Your task to perform on an android device: allow cookies in the chrome app Image 0: 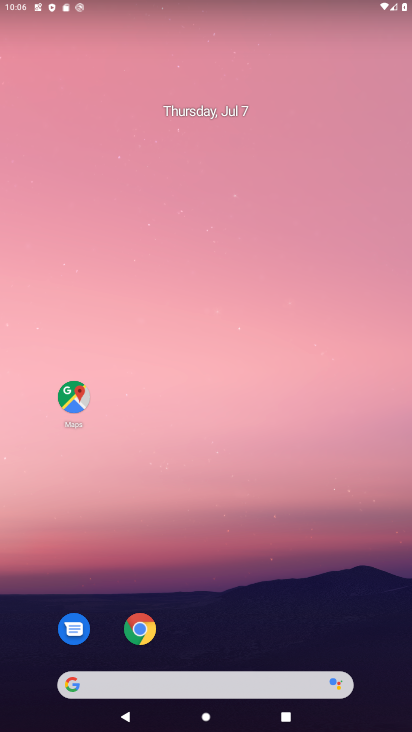
Step 0: drag from (213, 639) to (249, 116)
Your task to perform on an android device: allow cookies in the chrome app Image 1: 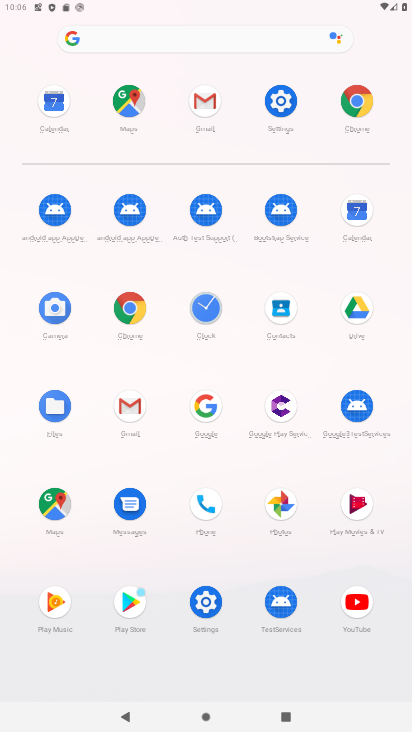
Step 1: click (123, 302)
Your task to perform on an android device: allow cookies in the chrome app Image 2: 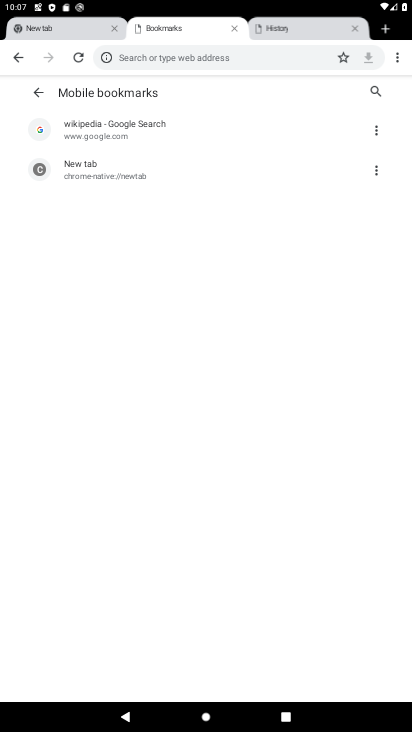
Step 2: click (392, 52)
Your task to perform on an android device: allow cookies in the chrome app Image 3: 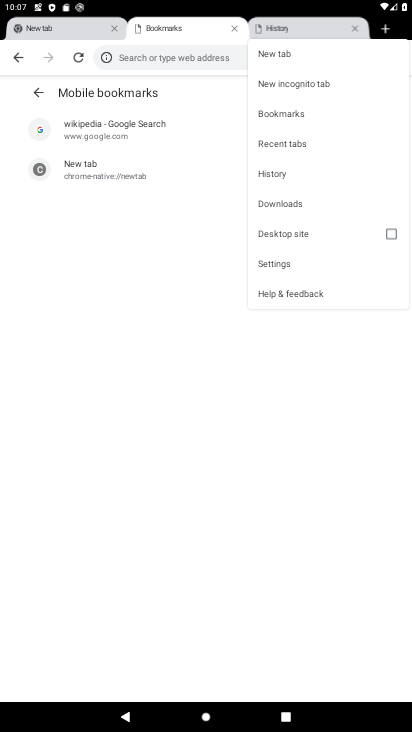
Step 3: click (280, 255)
Your task to perform on an android device: allow cookies in the chrome app Image 4: 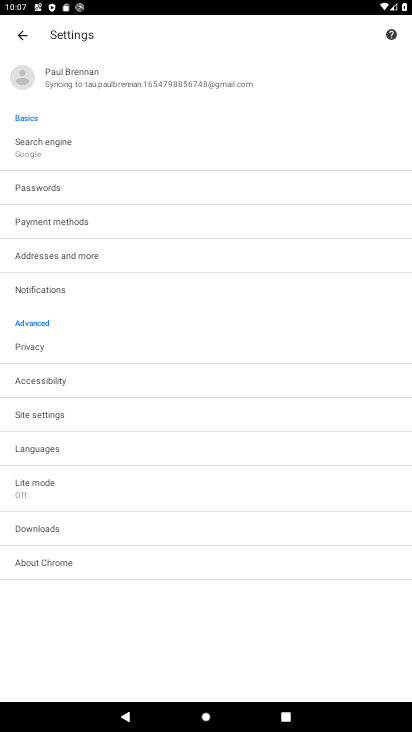
Step 4: click (48, 411)
Your task to perform on an android device: allow cookies in the chrome app Image 5: 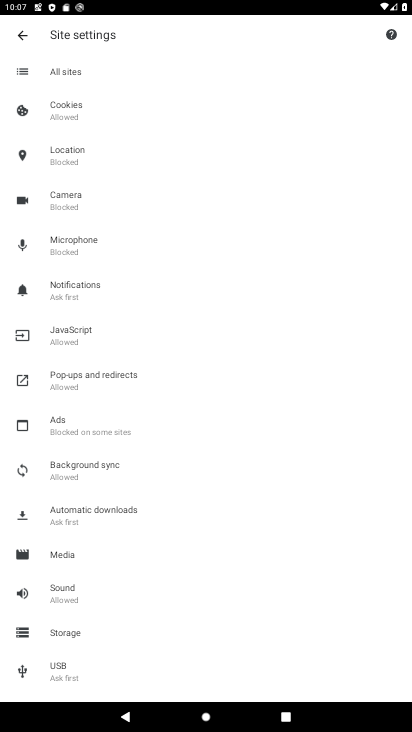
Step 5: click (55, 113)
Your task to perform on an android device: allow cookies in the chrome app Image 6: 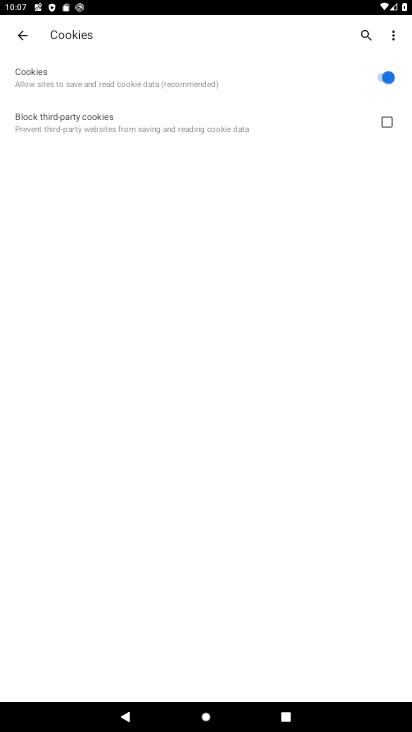
Step 6: task complete